Your task to perform on an android device: What's the weather? Image 0: 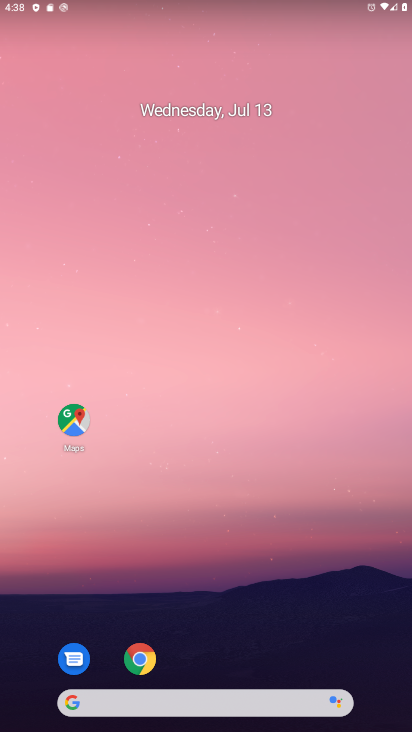
Step 0: click (315, 100)
Your task to perform on an android device: What's the weather? Image 1: 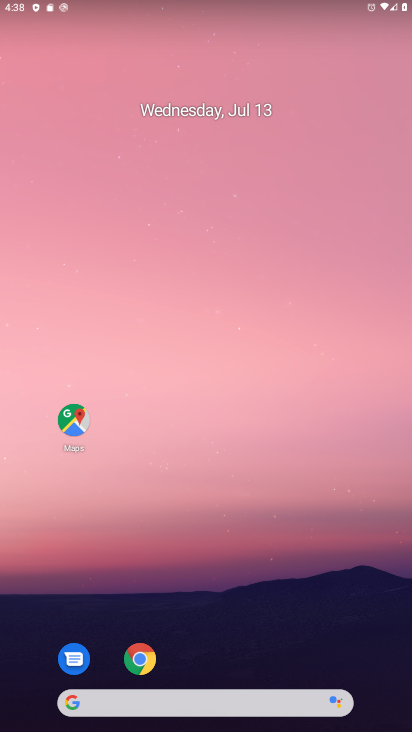
Step 1: drag from (291, 599) to (286, 65)
Your task to perform on an android device: What's the weather? Image 2: 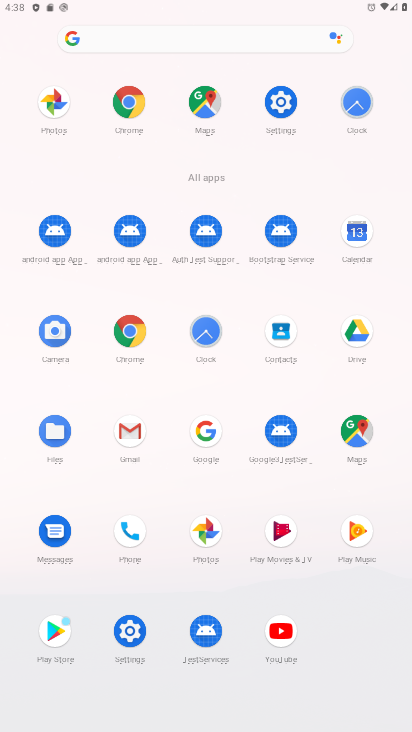
Step 2: click (134, 103)
Your task to perform on an android device: What's the weather? Image 3: 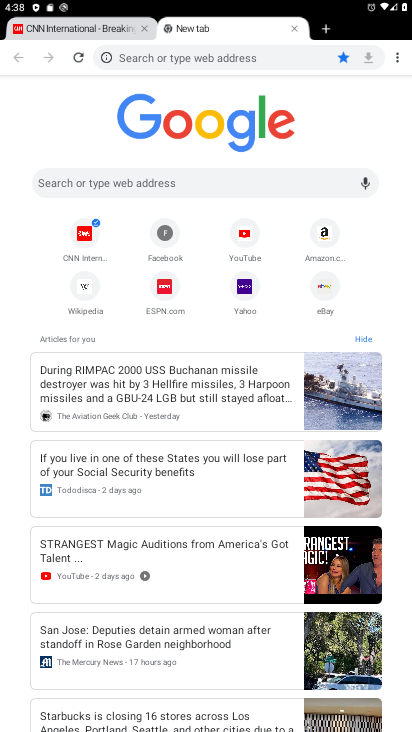
Step 3: click (231, 172)
Your task to perform on an android device: What's the weather? Image 4: 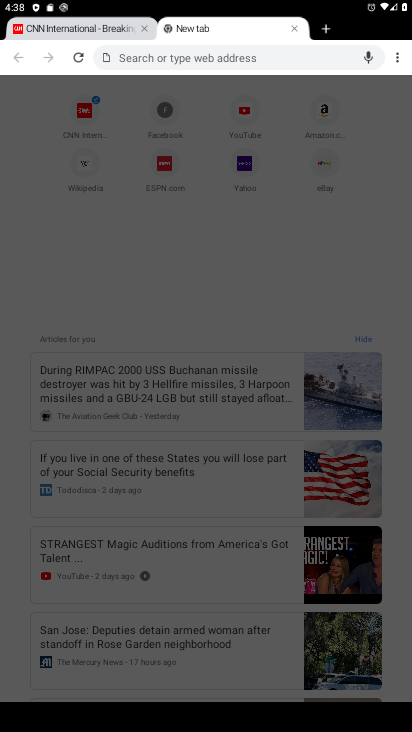
Step 4: type "weather"
Your task to perform on an android device: What's the weather? Image 5: 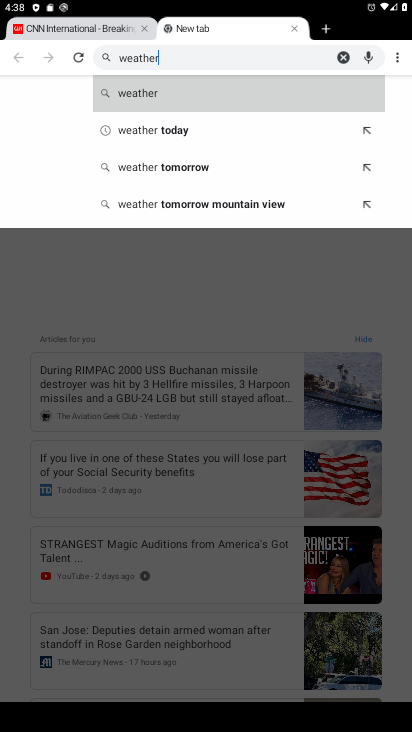
Step 5: click (129, 98)
Your task to perform on an android device: What's the weather? Image 6: 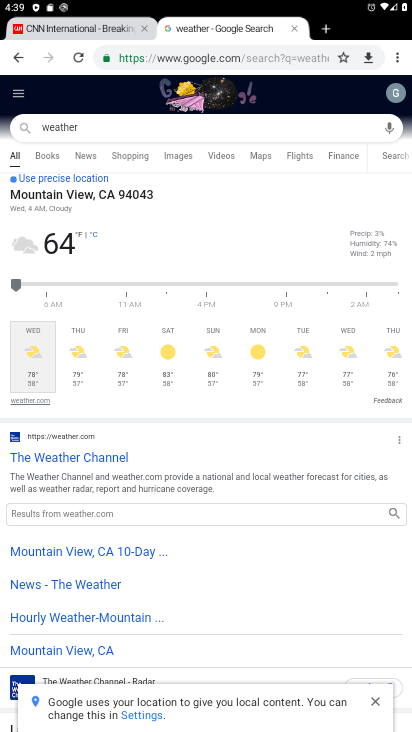
Step 6: task complete